Your task to perform on an android device: Open settings on Google Maps Image 0: 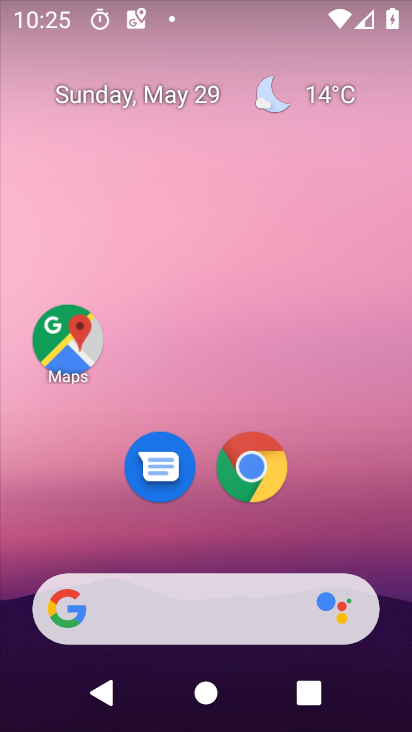
Step 0: click (74, 362)
Your task to perform on an android device: Open settings on Google Maps Image 1: 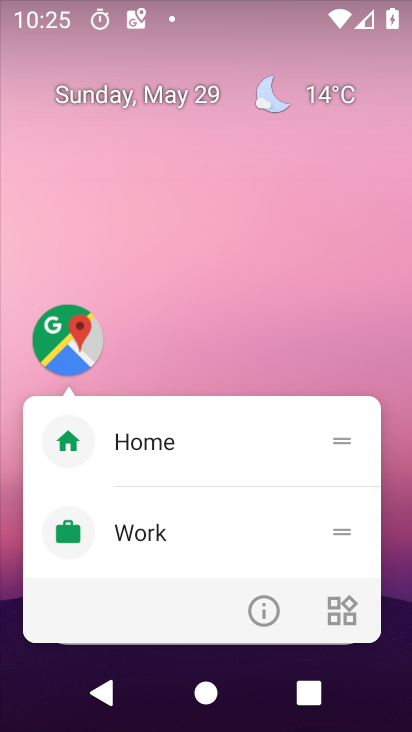
Step 1: click (74, 362)
Your task to perform on an android device: Open settings on Google Maps Image 2: 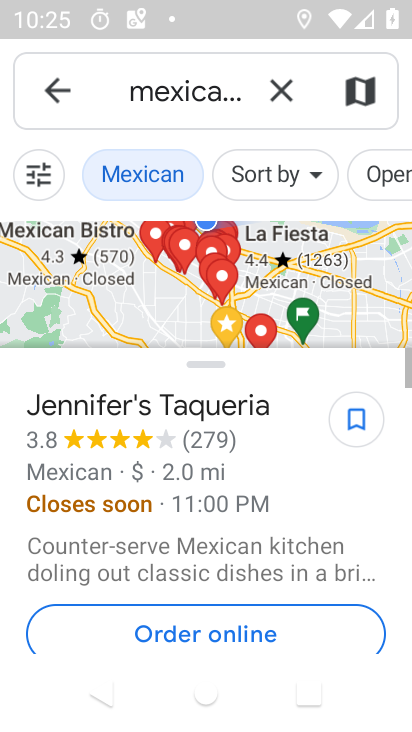
Step 2: click (62, 86)
Your task to perform on an android device: Open settings on Google Maps Image 3: 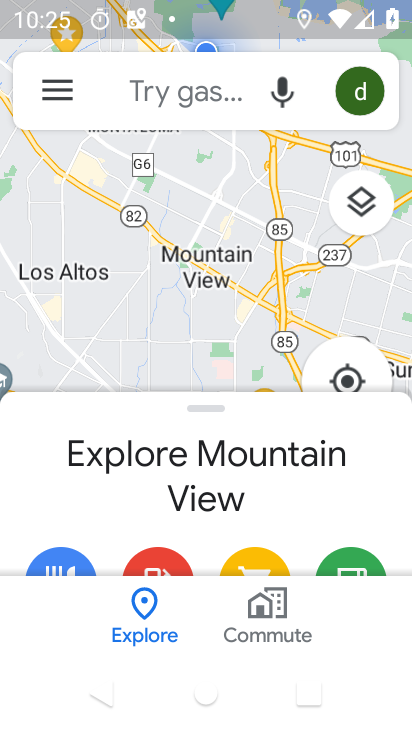
Step 3: click (62, 86)
Your task to perform on an android device: Open settings on Google Maps Image 4: 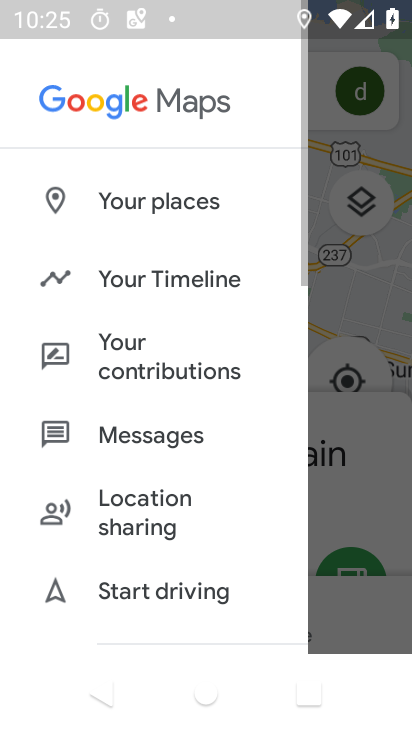
Step 4: drag from (170, 570) to (151, 230)
Your task to perform on an android device: Open settings on Google Maps Image 5: 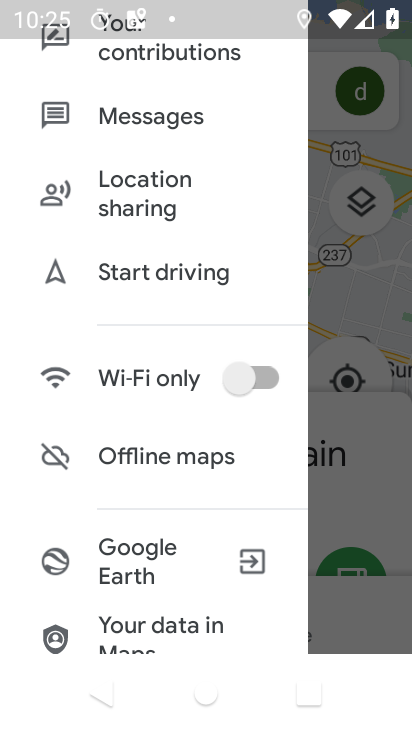
Step 5: drag from (175, 513) to (147, 210)
Your task to perform on an android device: Open settings on Google Maps Image 6: 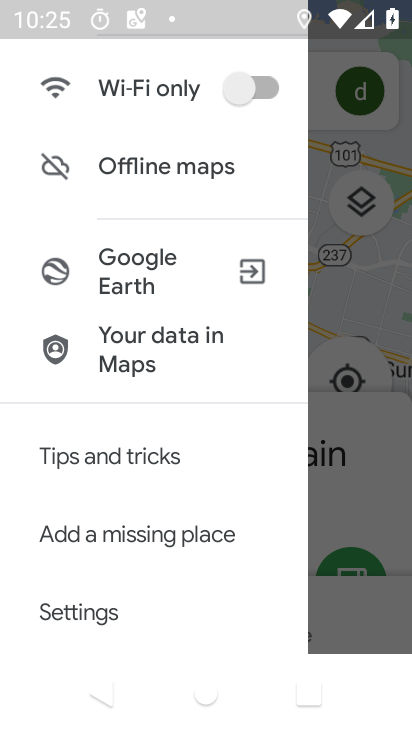
Step 6: click (134, 603)
Your task to perform on an android device: Open settings on Google Maps Image 7: 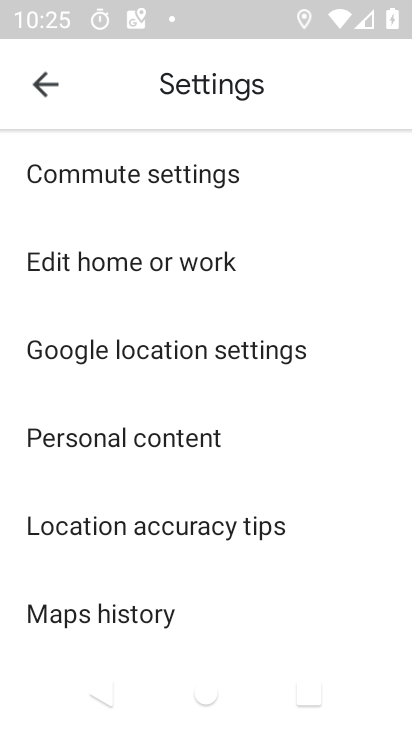
Step 7: task complete